Your task to perform on an android device: Show me the alarms in the clock app Image 0: 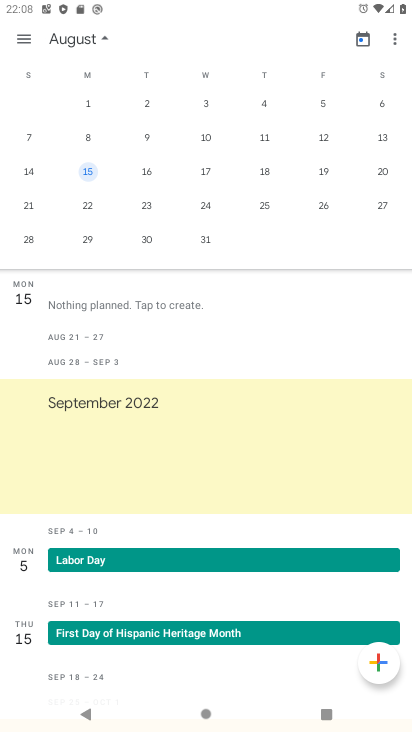
Step 0: press home button
Your task to perform on an android device: Show me the alarms in the clock app Image 1: 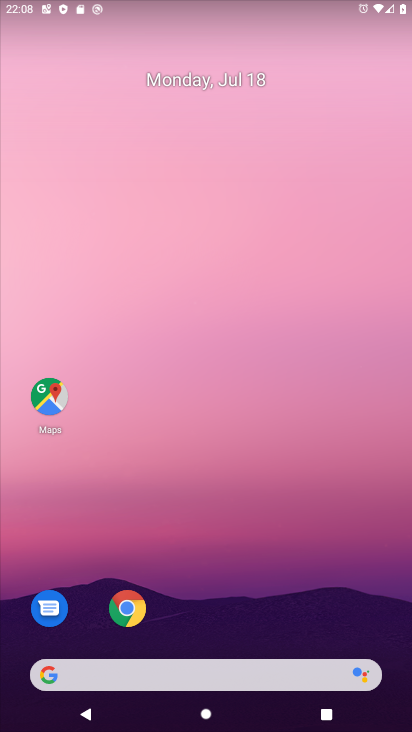
Step 1: drag from (33, 691) to (164, 136)
Your task to perform on an android device: Show me the alarms in the clock app Image 2: 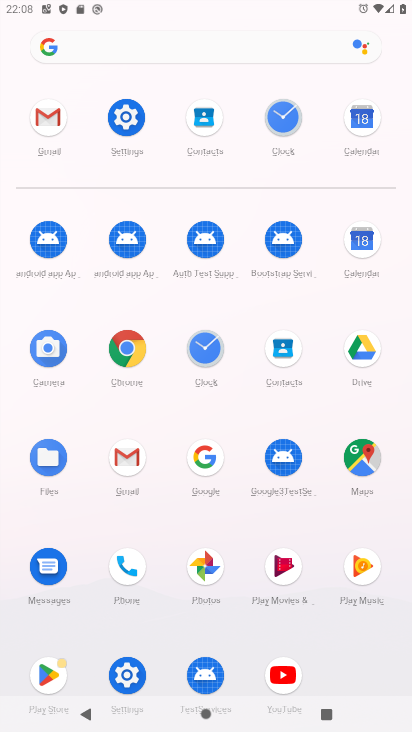
Step 2: click (301, 116)
Your task to perform on an android device: Show me the alarms in the clock app Image 3: 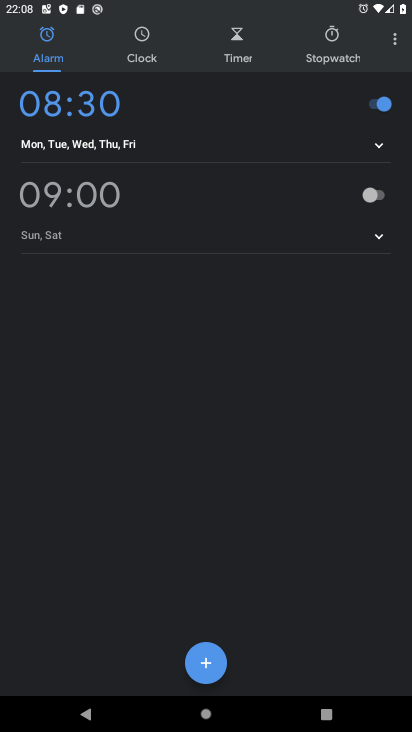
Step 3: task complete